Your task to perform on an android device: Go to settings Image 0: 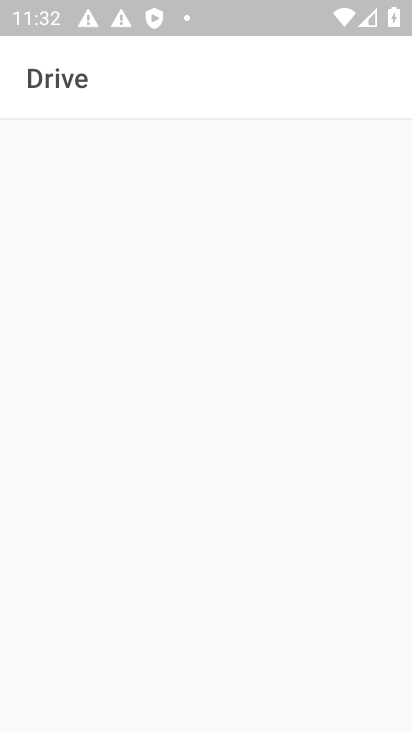
Step 0: press home button
Your task to perform on an android device: Go to settings Image 1: 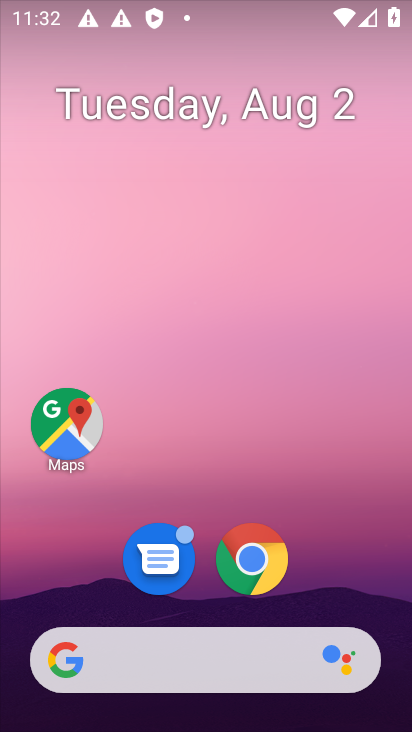
Step 1: drag from (205, 603) to (204, 152)
Your task to perform on an android device: Go to settings Image 2: 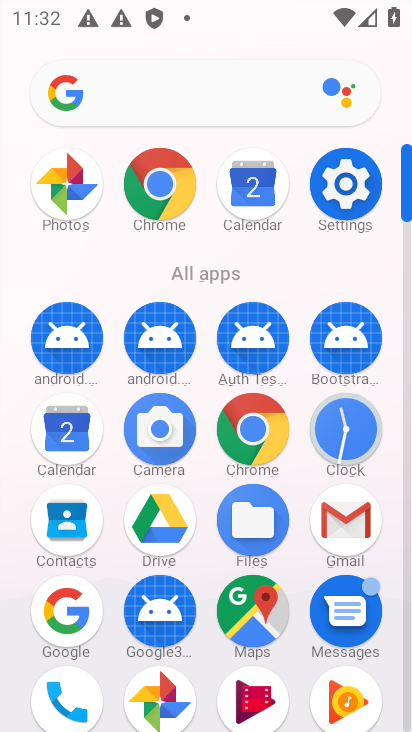
Step 2: click (356, 177)
Your task to perform on an android device: Go to settings Image 3: 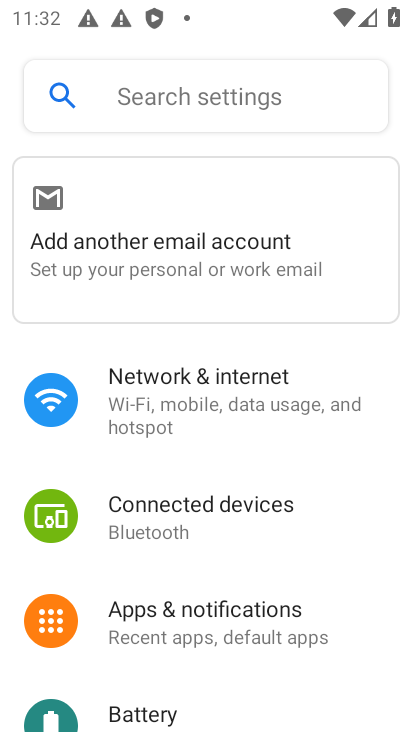
Step 3: task complete